Your task to perform on an android device: turn on airplane mode Image 0: 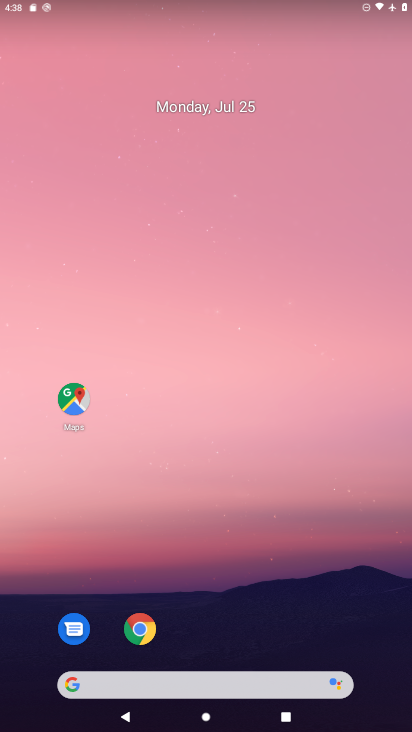
Step 0: drag from (233, 454) to (395, 2)
Your task to perform on an android device: turn on airplane mode Image 1: 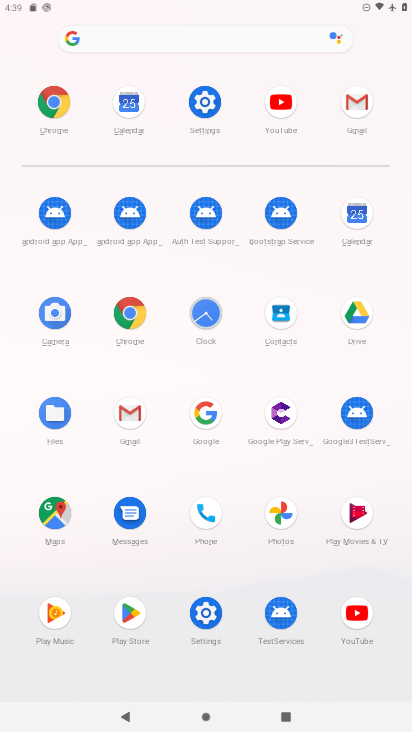
Step 1: click (209, 100)
Your task to perform on an android device: turn on airplane mode Image 2: 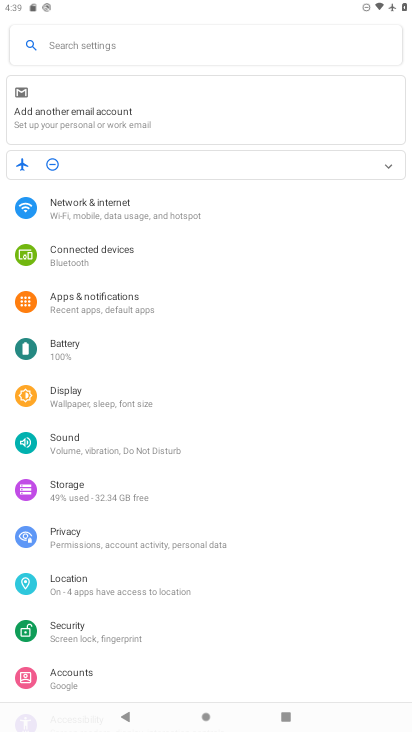
Step 2: click (123, 203)
Your task to perform on an android device: turn on airplane mode Image 3: 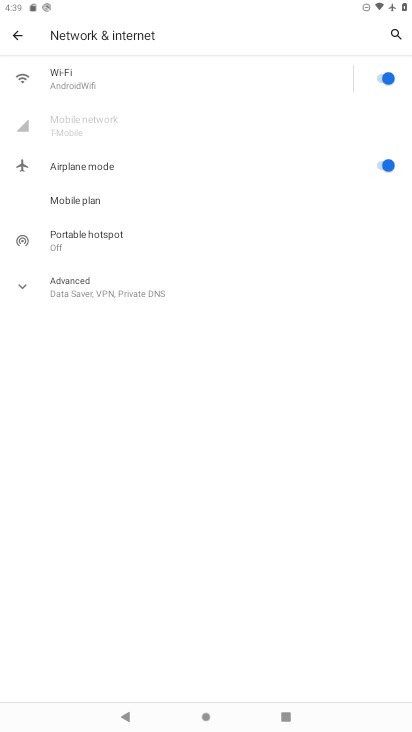
Step 3: task complete